Your task to perform on an android device: toggle data saver in the chrome app Image 0: 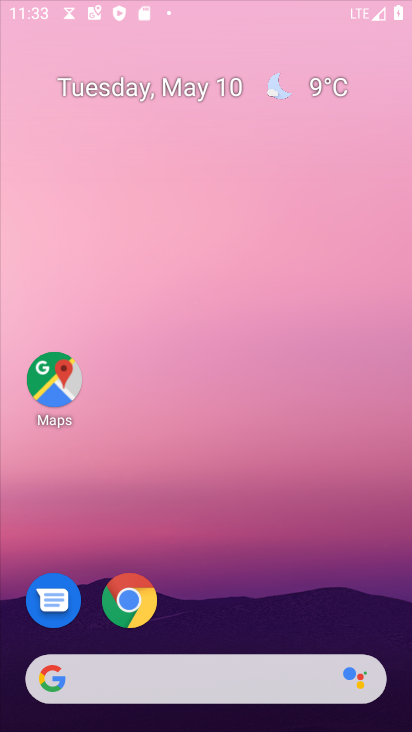
Step 0: press home button
Your task to perform on an android device: toggle data saver in the chrome app Image 1: 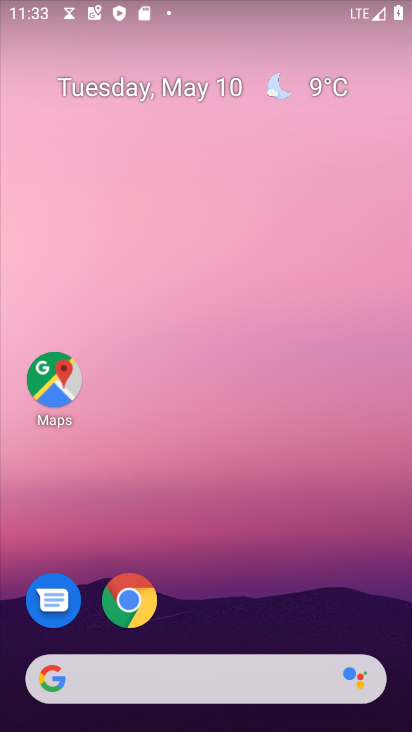
Step 1: click (136, 595)
Your task to perform on an android device: toggle data saver in the chrome app Image 2: 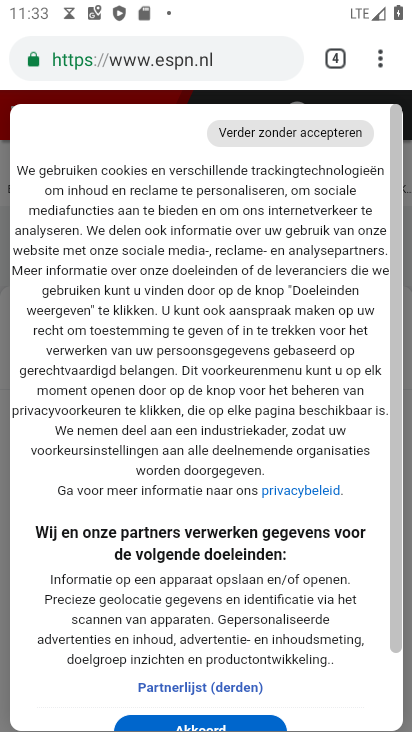
Step 2: click (385, 53)
Your task to perform on an android device: toggle data saver in the chrome app Image 3: 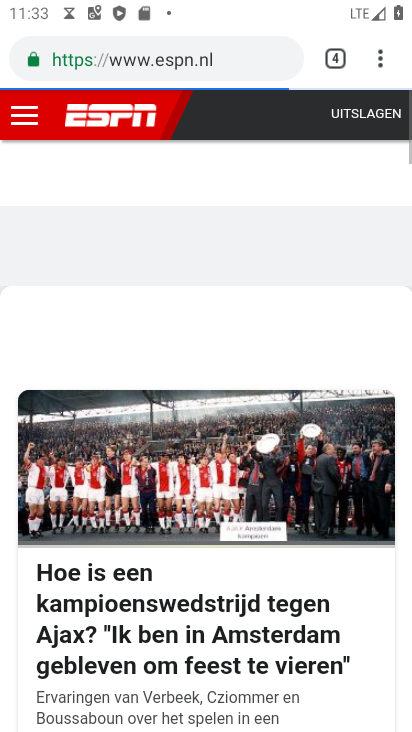
Step 3: click (372, 62)
Your task to perform on an android device: toggle data saver in the chrome app Image 4: 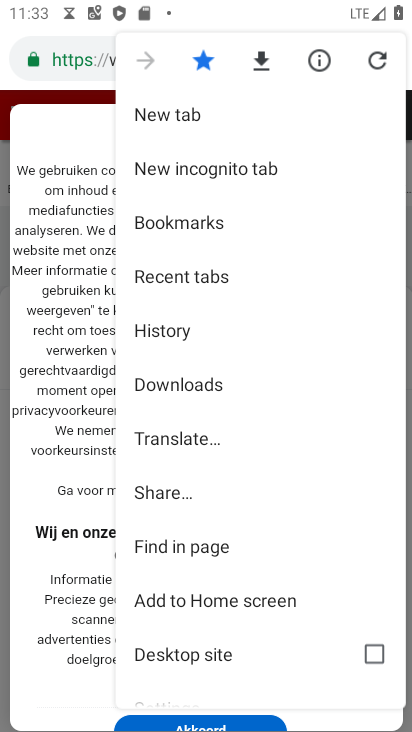
Step 4: drag from (254, 596) to (243, 208)
Your task to perform on an android device: toggle data saver in the chrome app Image 5: 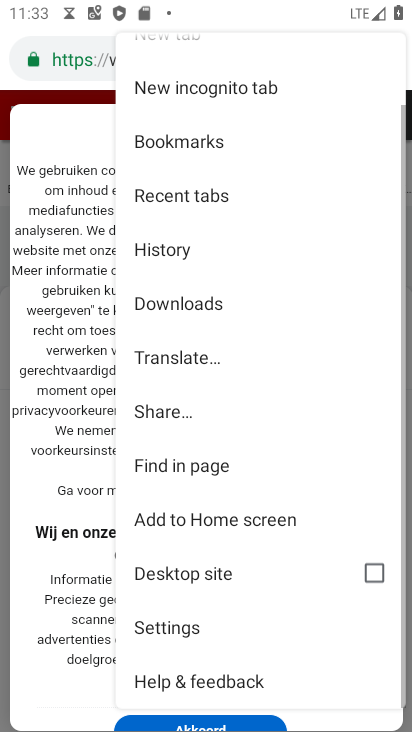
Step 5: click (197, 619)
Your task to perform on an android device: toggle data saver in the chrome app Image 6: 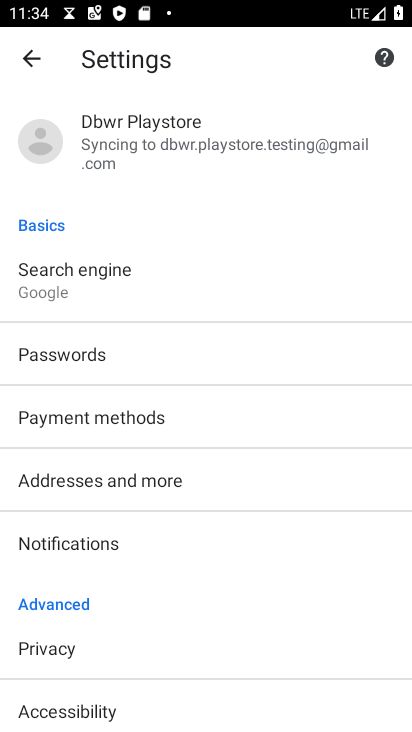
Step 6: drag from (186, 632) to (174, 180)
Your task to perform on an android device: toggle data saver in the chrome app Image 7: 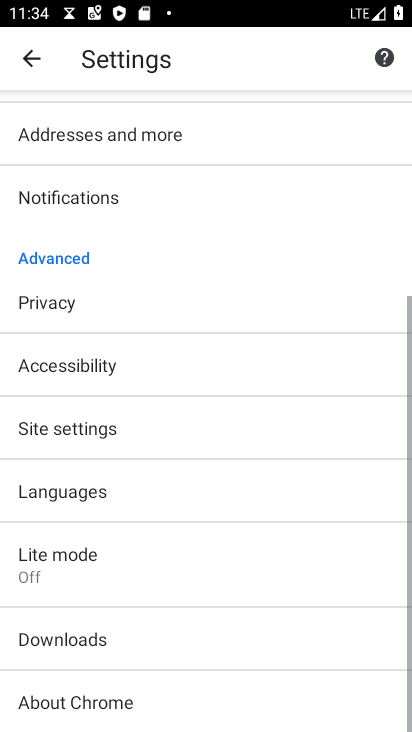
Step 7: click (124, 556)
Your task to perform on an android device: toggle data saver in the chrome app Image 8: 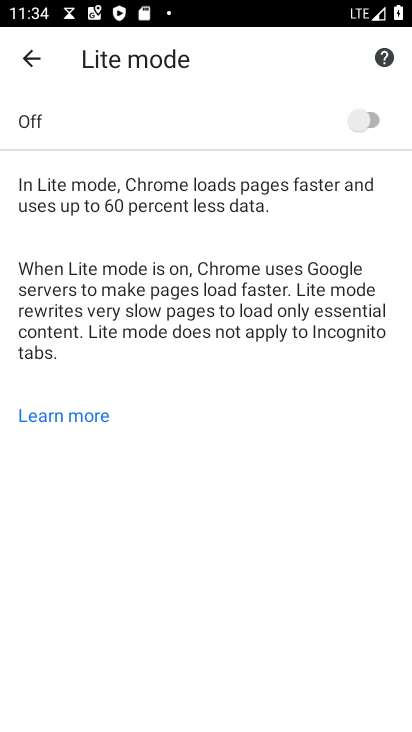
Step 8: click (369, 117)
Your task to perform on an android device: toggle data saver in the chrome app Image 9: 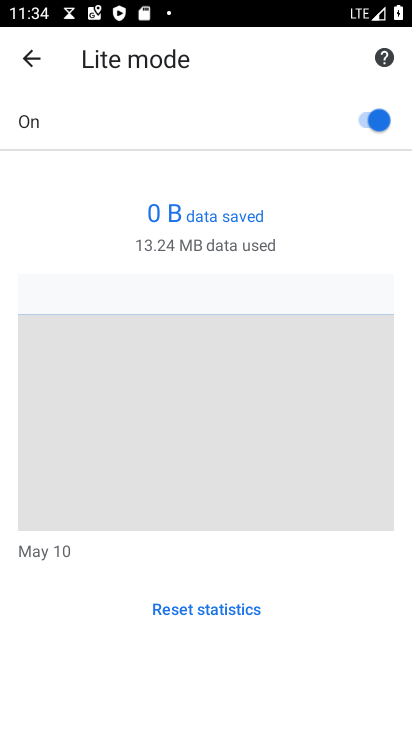
Step 9: task complete